Your task to perform on an android device: change notification settings in the gmail app Image 0: 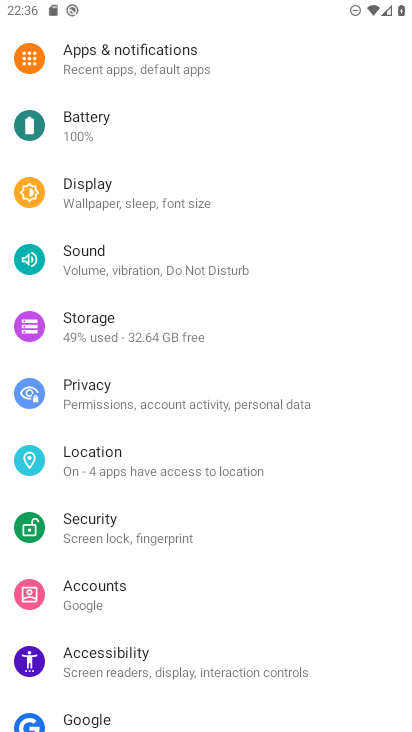
Step 0: press home button
Your task to perform on an android device: change notification settings in the gmail app Image 1: 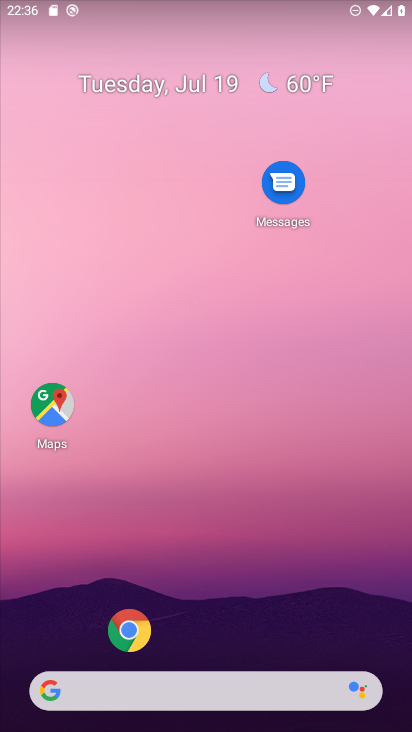
Step 1: drag from (104, 576) to (270, 0)
Your task to perform on an android device: change notification settings in the gmail app Image 2: 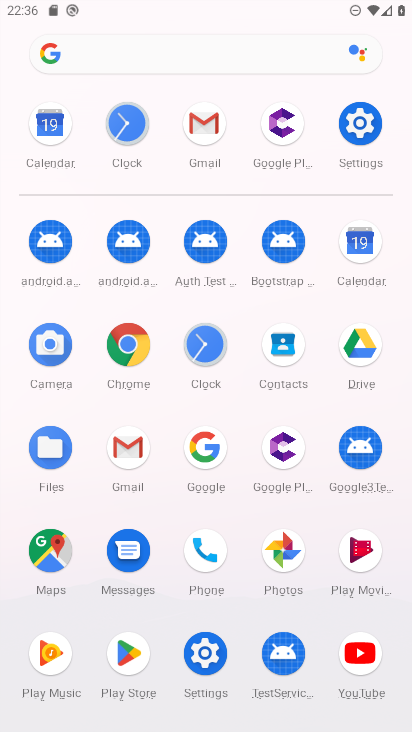
Step 2: click (123, 443)
Your task to perform on an android device: change notification settings in the gmail app Image 3: 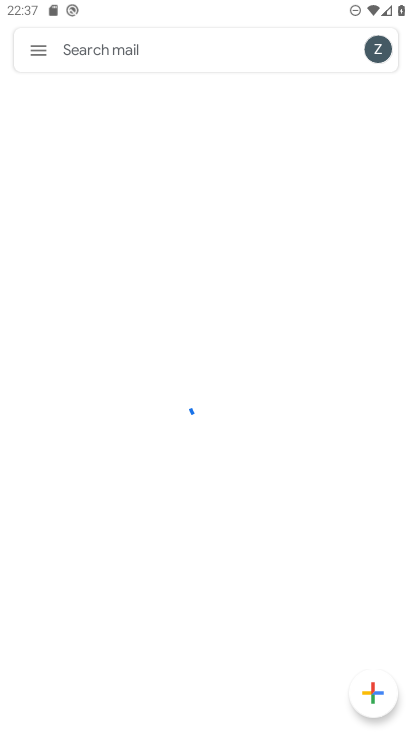
Step 3: task complete